Your task to perform on an android device: open app "Skype" (install if not already installed) Image 0: 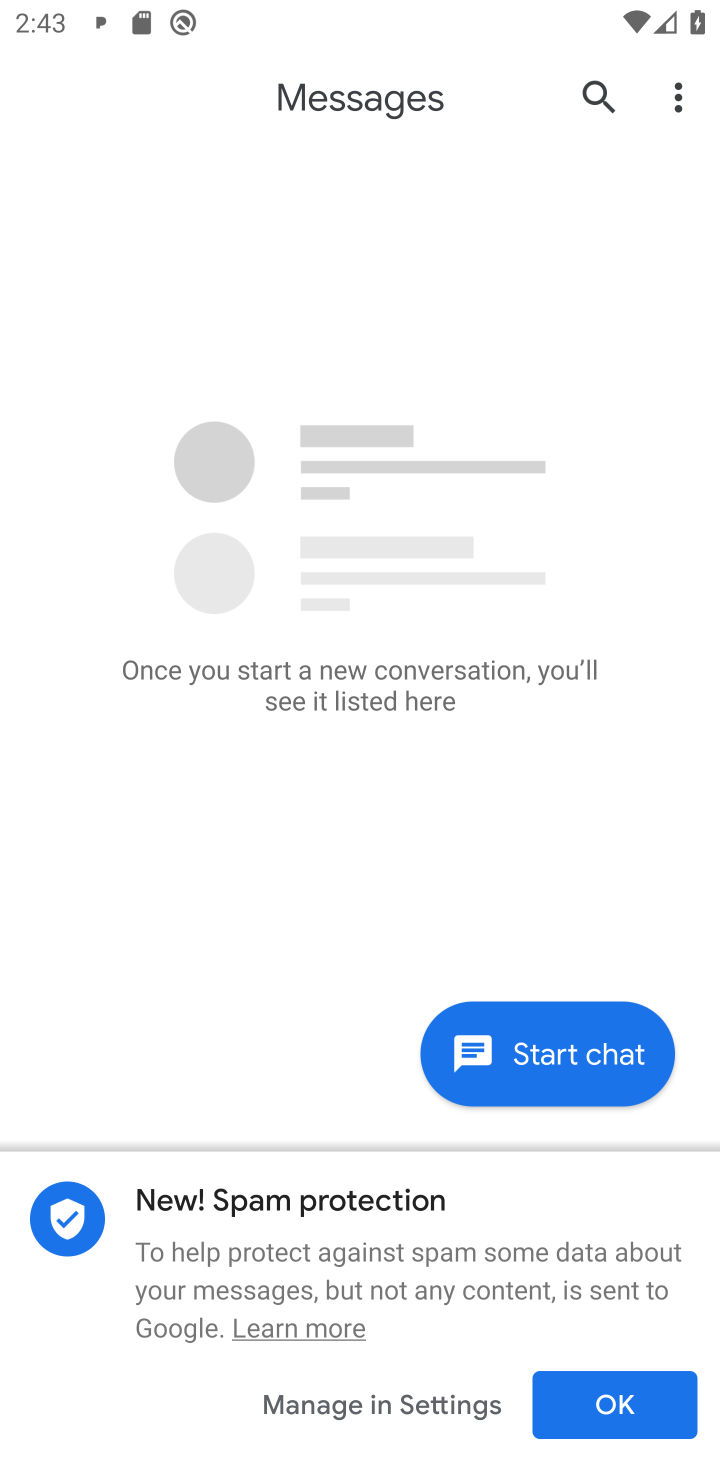
Step 0: press home button
Your task to perform on an android device: open app "Skype" (install if not already installed) Image 1: 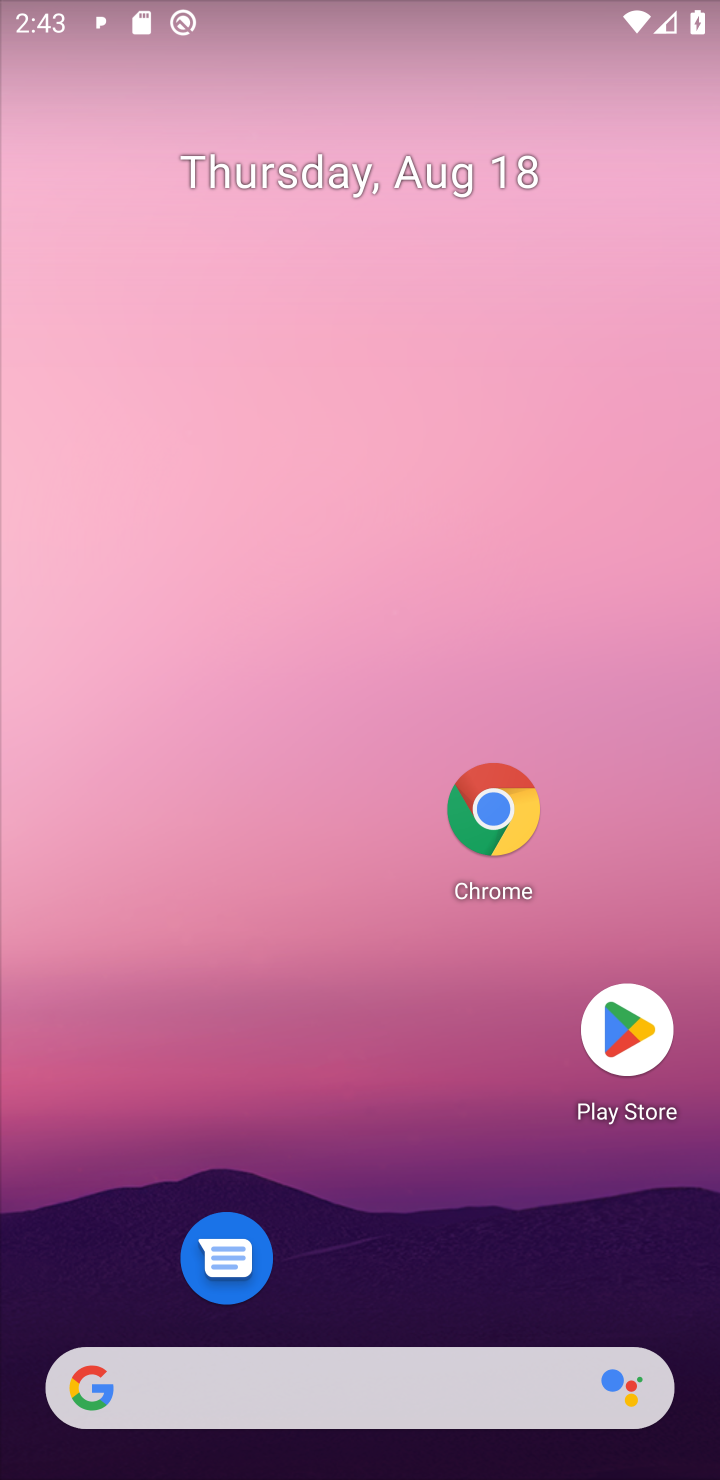
Step 1: click (615, 1035)
Your task to perform on an android device: open app "Skype" (install if not already installed) Image 2: 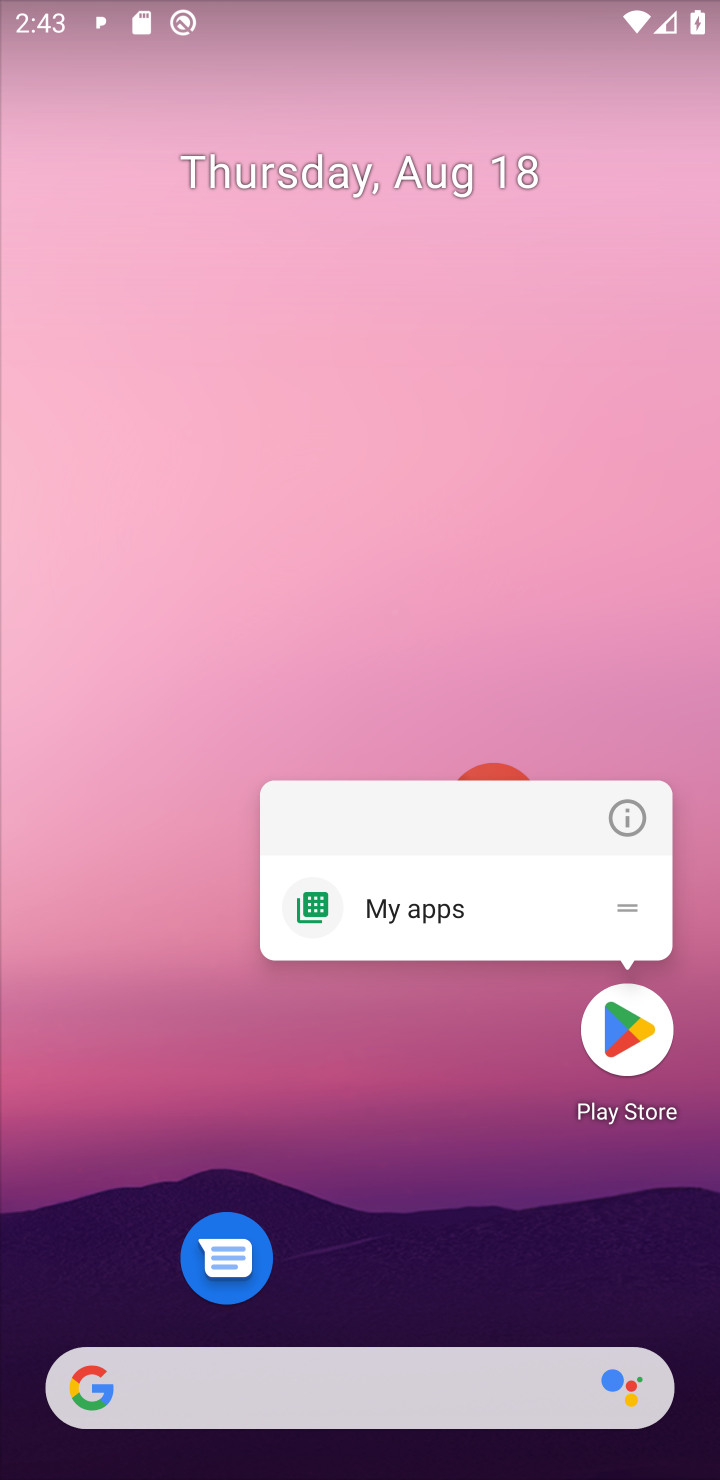
Step 2: click (653, 995)
Your task to perform on an android device: open app "Skype" (install if not already installed) Image 3: 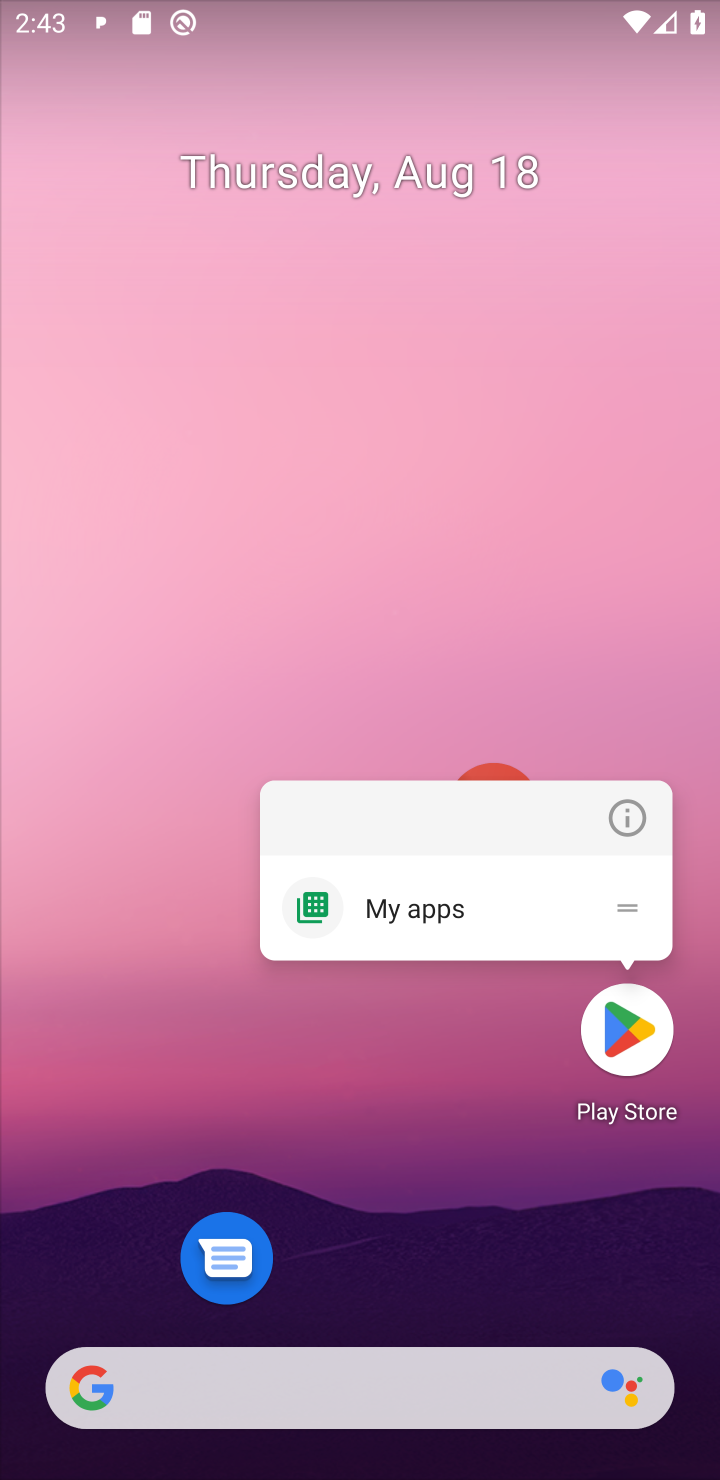
Step 3: click (625, 1031)
Your task to perform on an android device: open app "Skype" (install if not already installed) Image 4: 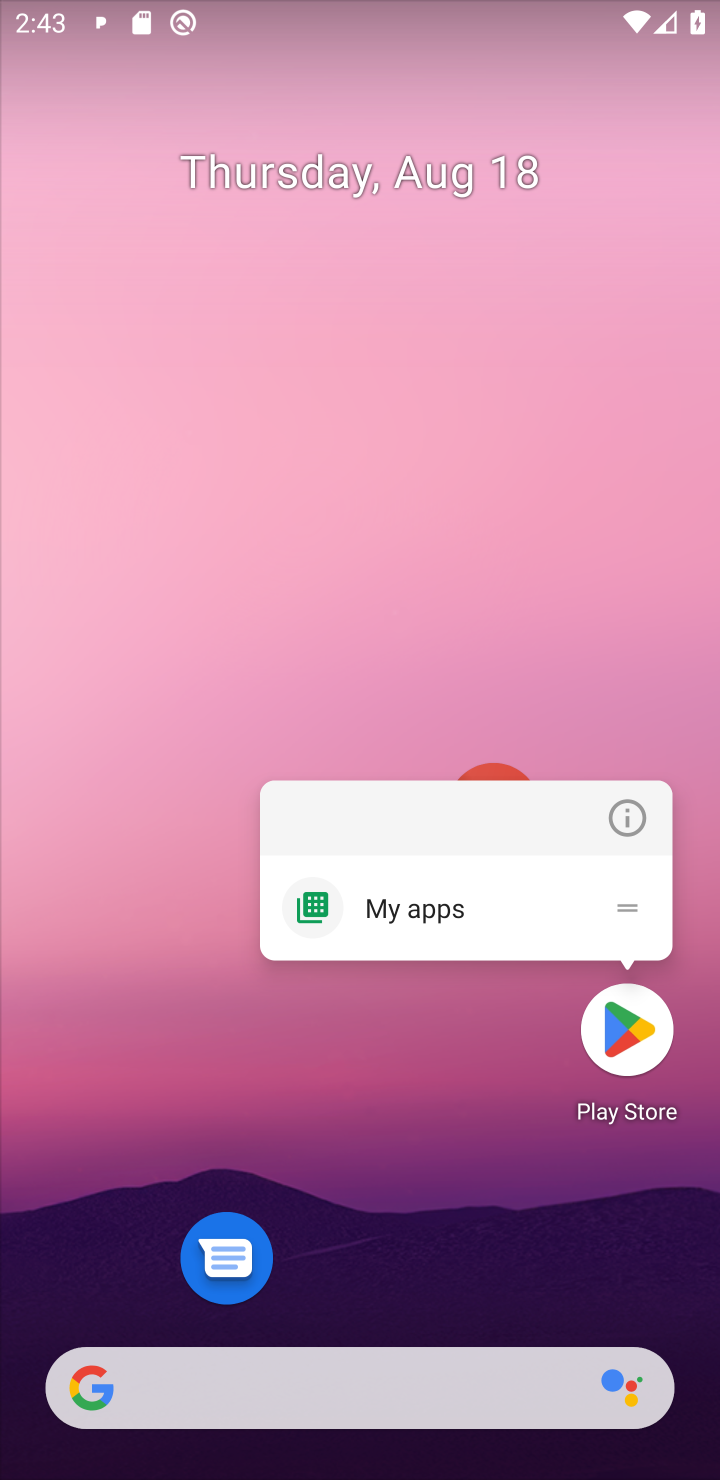
Step 4: click (625, 1031)
Your task to perform on an android device: open app "Skype" (install if not already installed) Image 5: 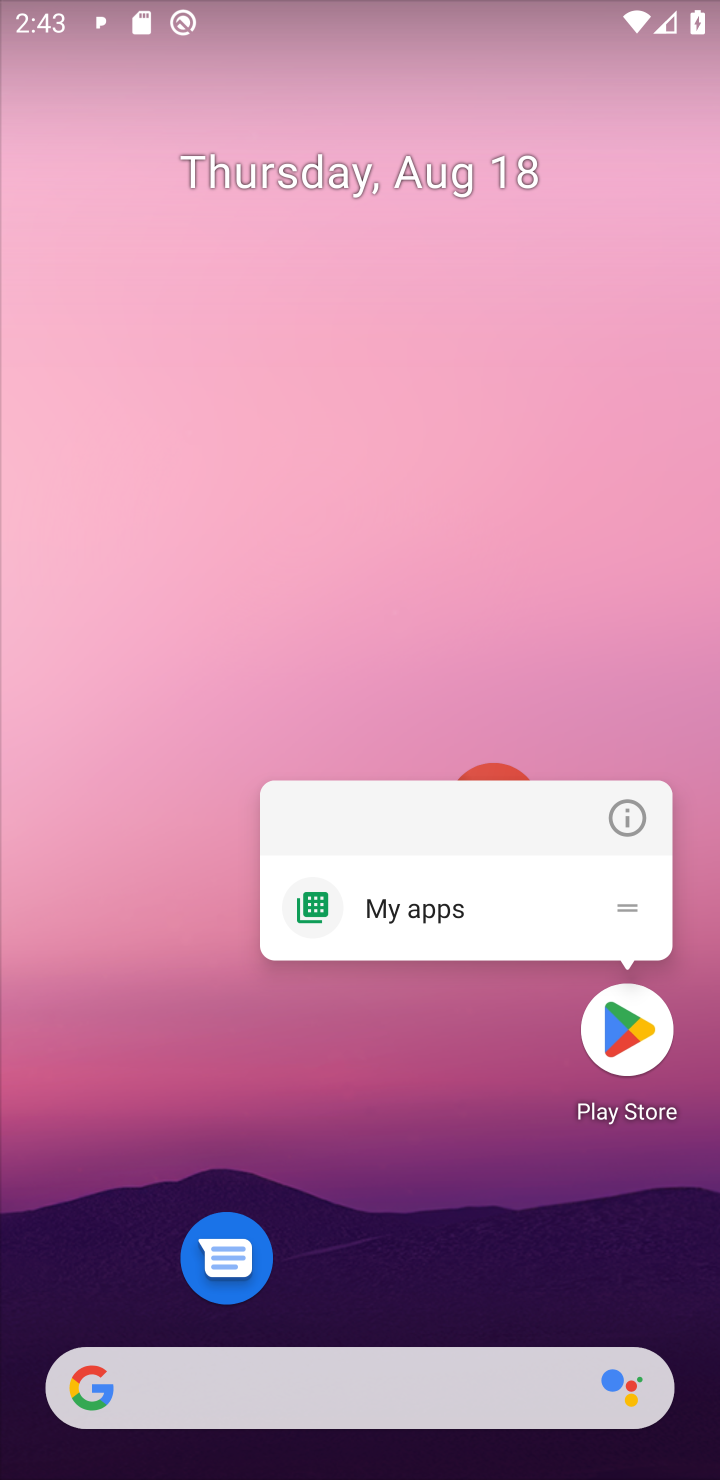
Step 5: click (637, 1061)
Your task to perform on an android device: open app "Skype" (install if not already installed) Image 6: 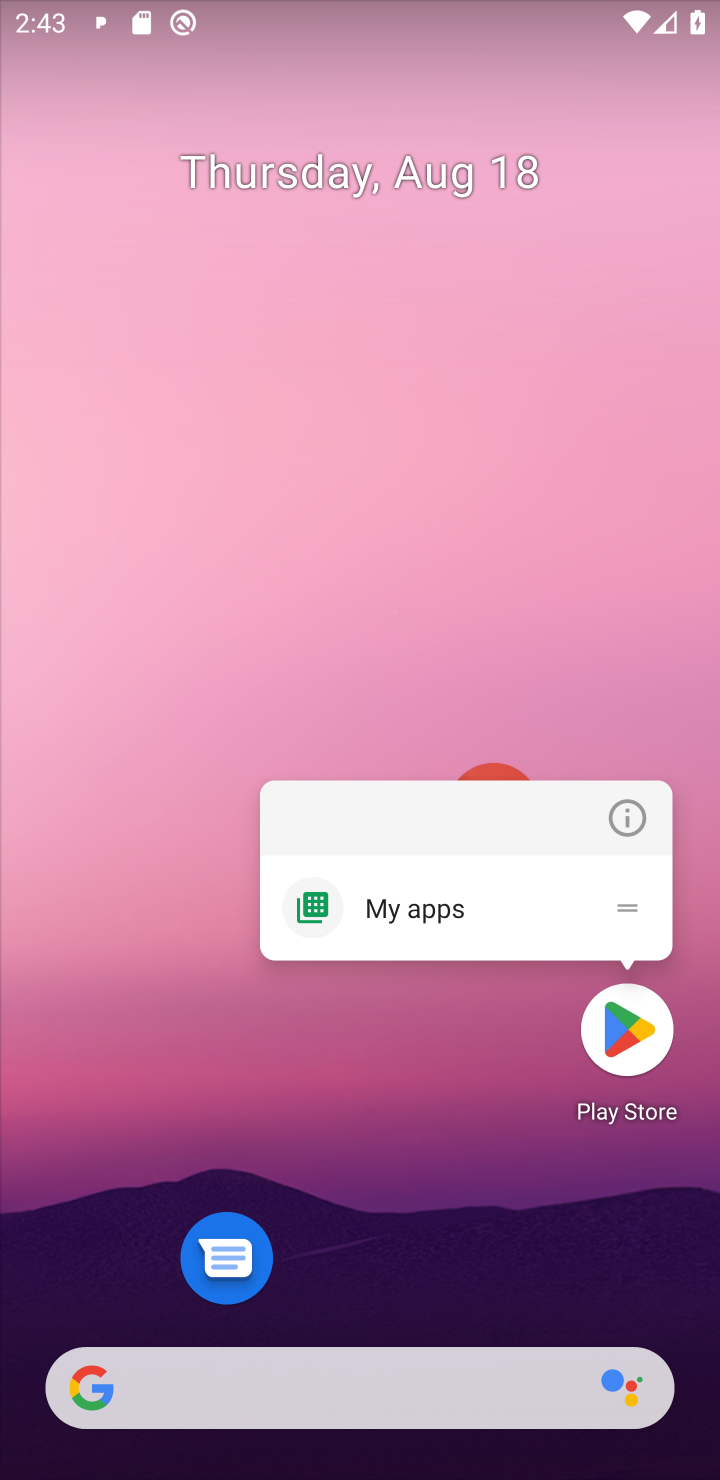
Step 6: click (605, 997)
Your task to perform on an android device: open app "Skype" (install if not already installed) Image 7: 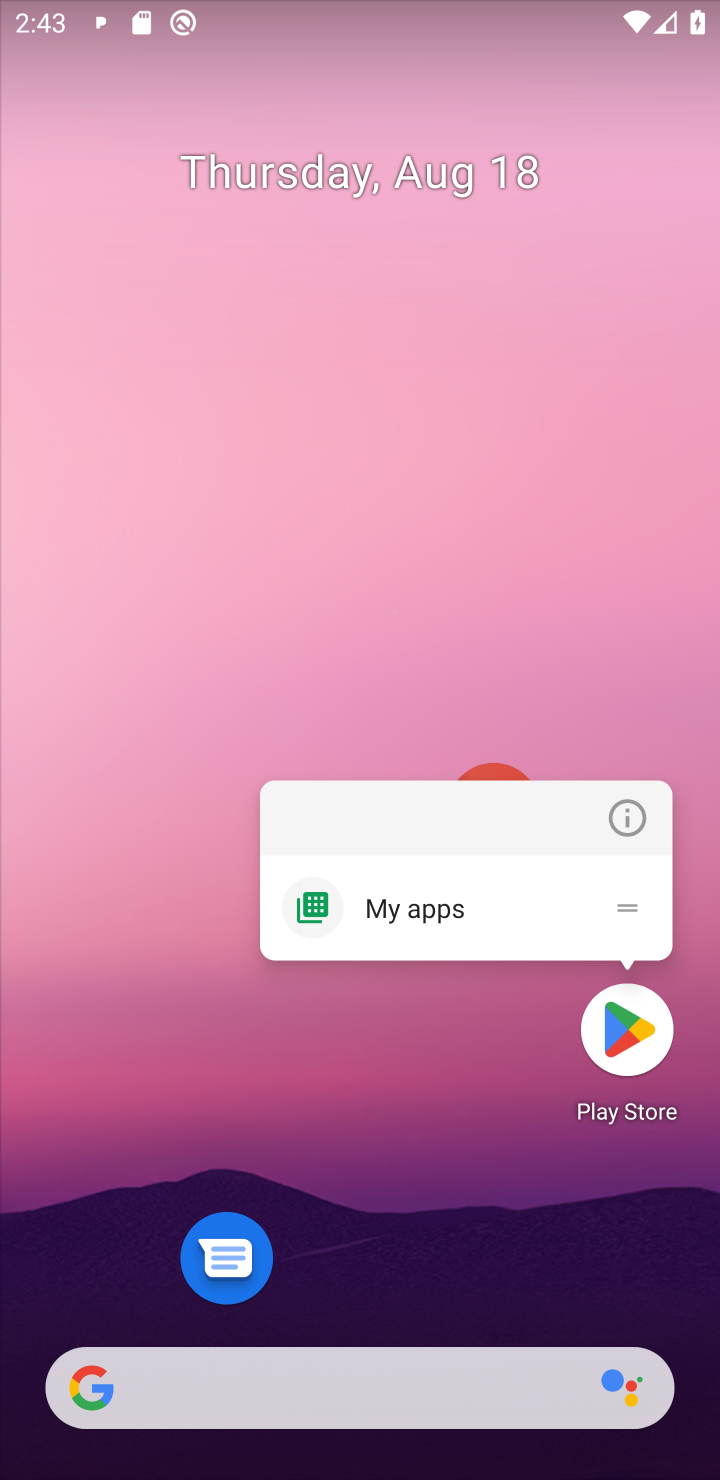
Step 7: click (613, 1029)
Your task to perform on an android device: open app "Skype" (install if not already installed) Image 8: 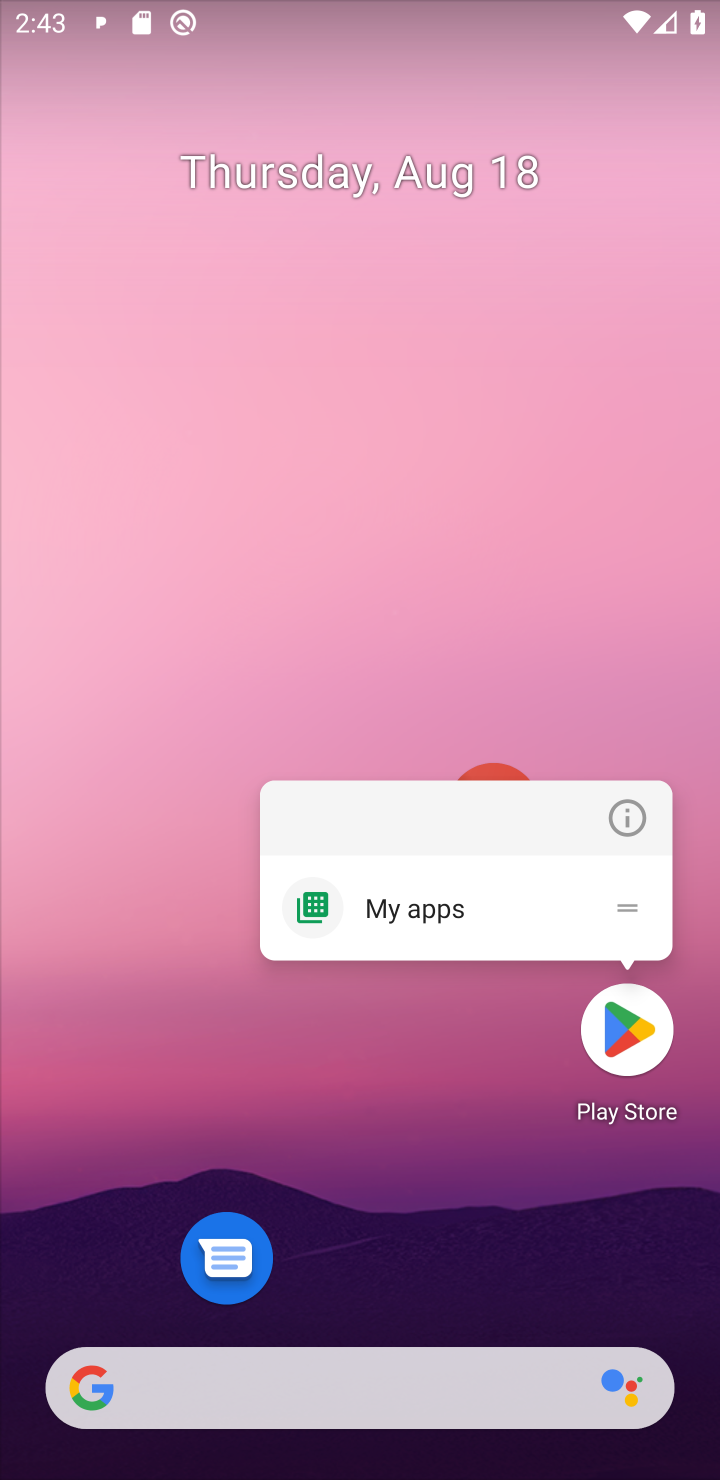
Step 8: click (632, 1054)
Your task to perform on an android device: open app "Skype" (install if not already installed) Image 9: 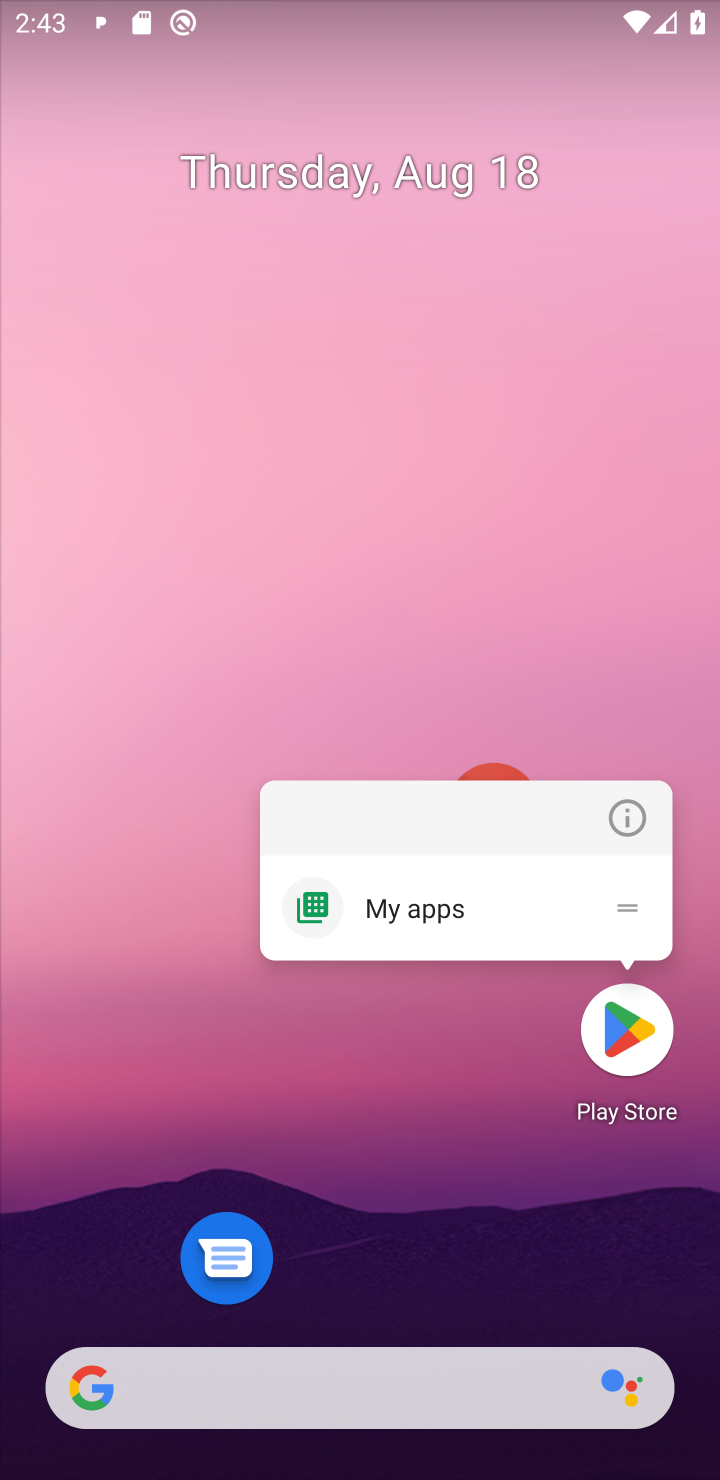
Step 9: click (632, 1054)
Your task to perform on an android device: open app "Skype" (install if not already installed) Image 10: 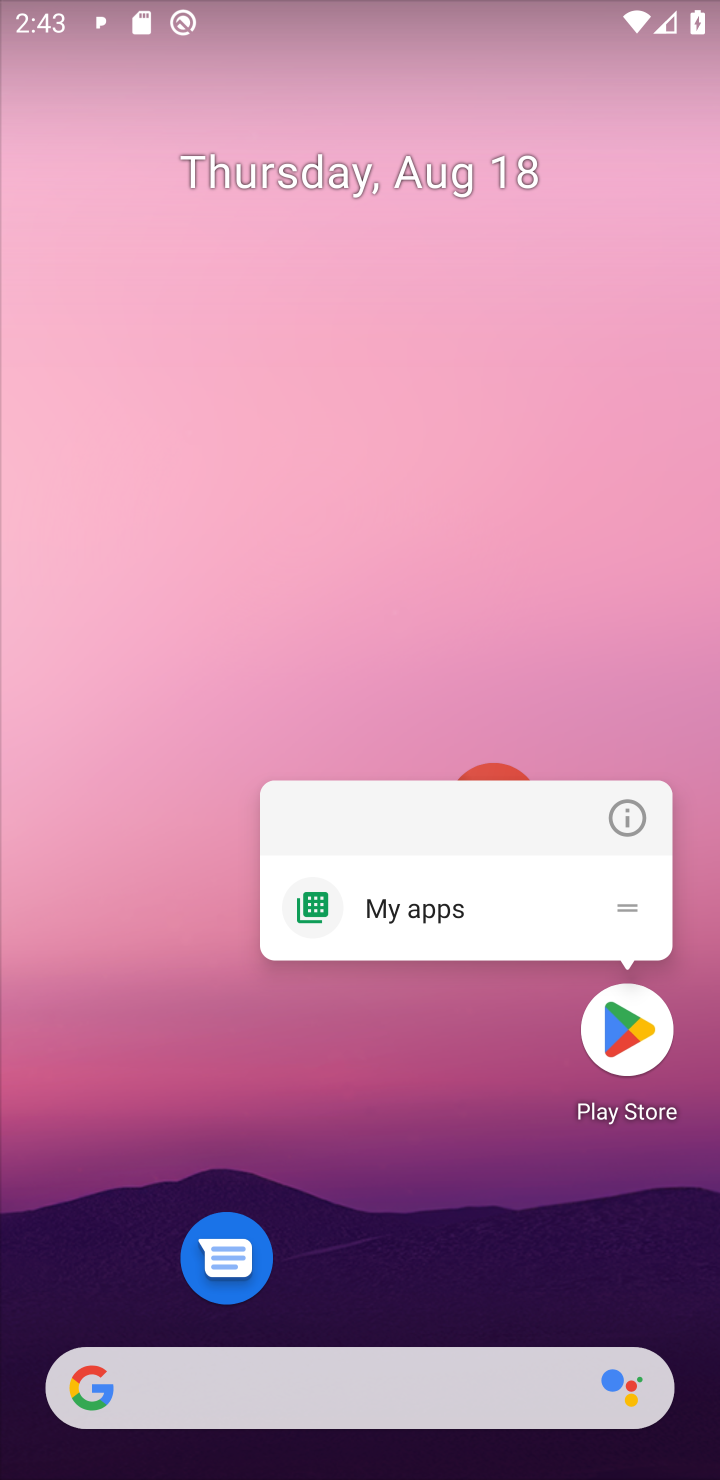
Step 10: click (60, 882)
Your task to perform on an android device: open app "Skype" (install if not already installed) Image 11: 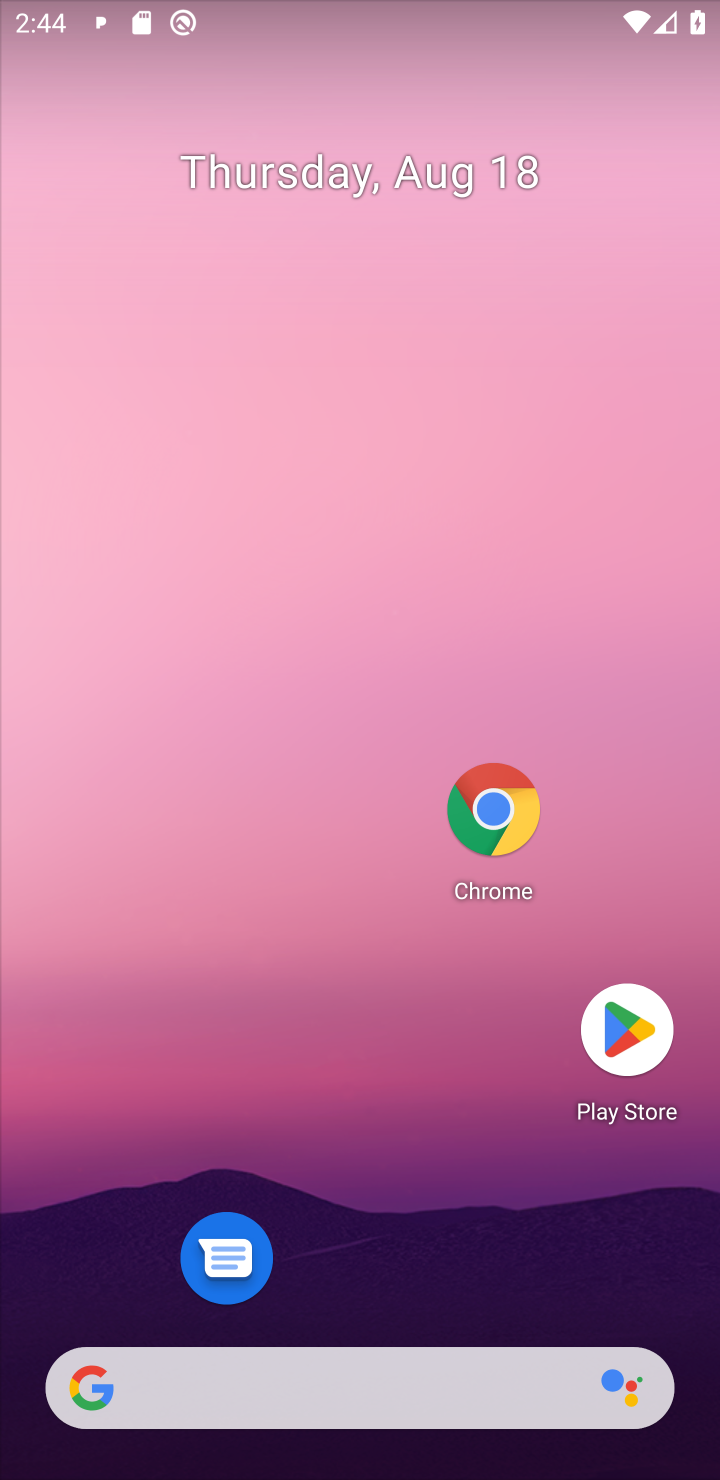
Step 11: click (628, 1039)
Your task to perform on an android device: open app "Skype" (install if not already installed) Image 12: 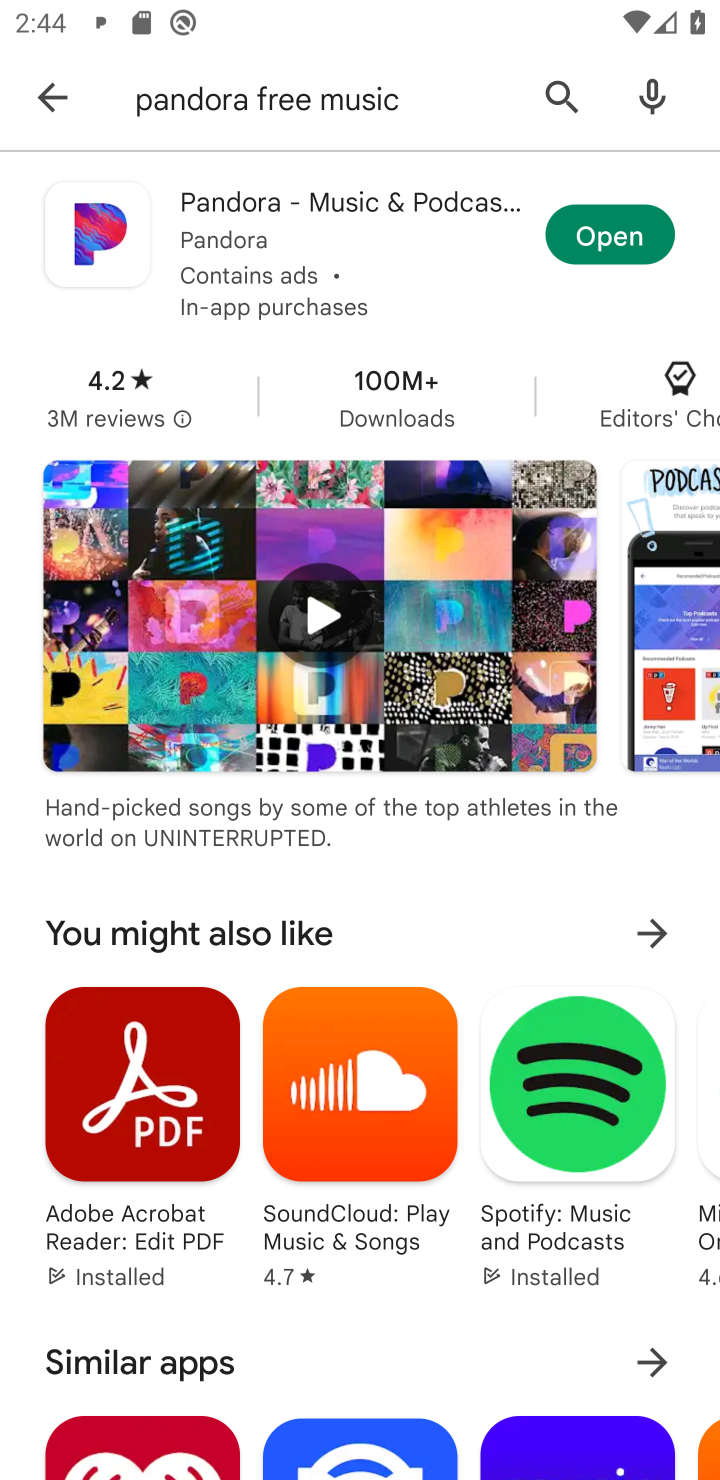
Step 12: click (64, 97)
Your task to perform on an android device: open app "Skype" (install if not already installed) Image 13: 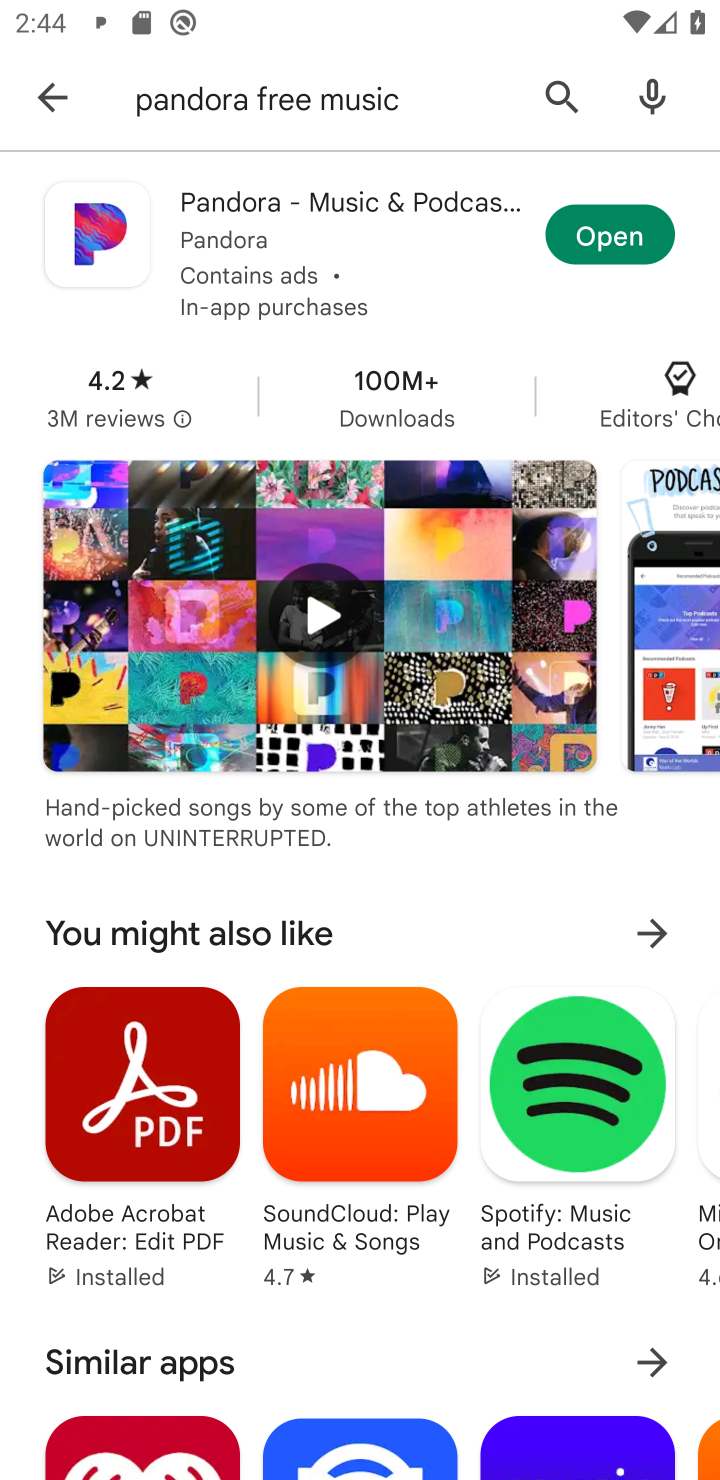
Step 13: click (64, 97)
Your task to perform on an android device: open app "Skype" (install if not already installed) Image 14: 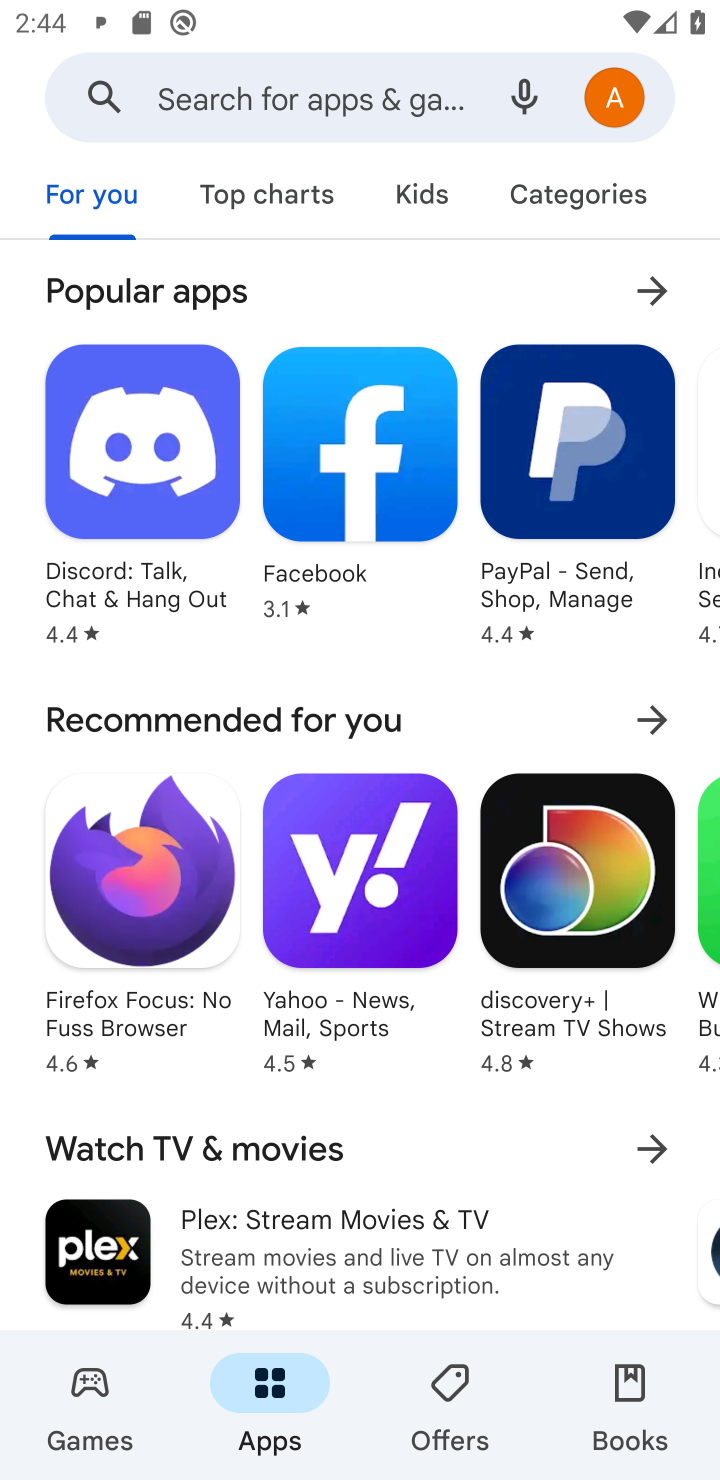
Step 14: click (266, 87)
Your task to perform on an android device: open app "Skype" (install if not already installed) Image 15: 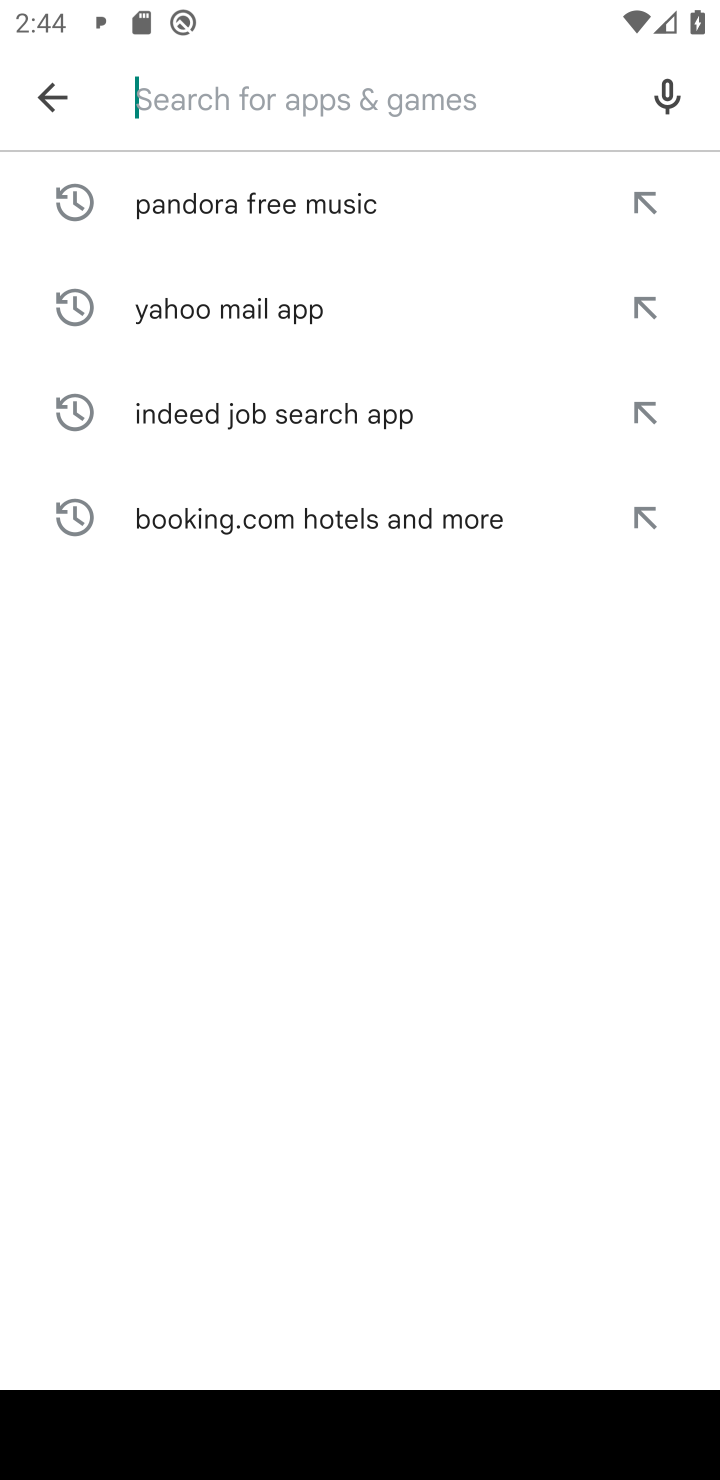
Step 15: type "skype "
Your task to perform on an android device: open app "Skype" (install if not already installed) Image 16: 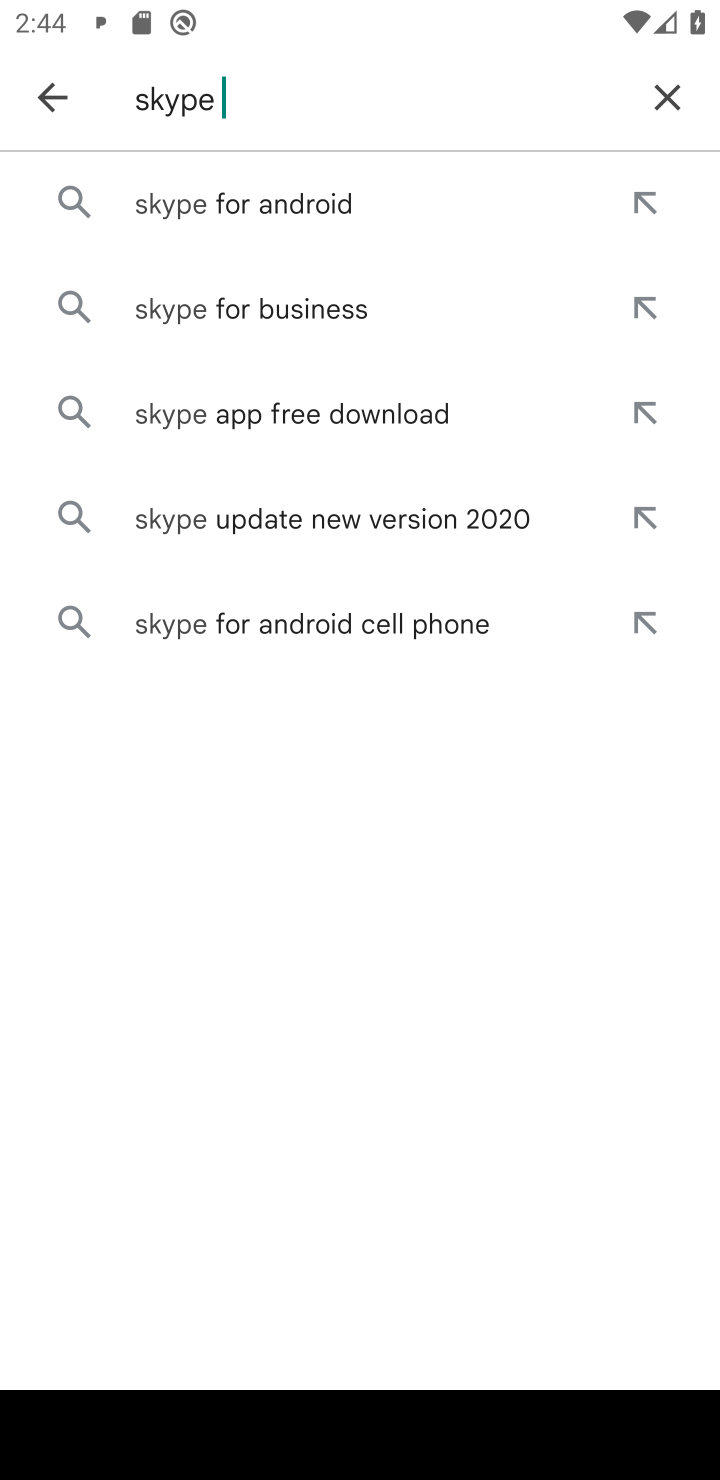
Step 16: click (225, 230)
Your task to perform on an android device: open app "Skype" (install if not already installed) Image 17: 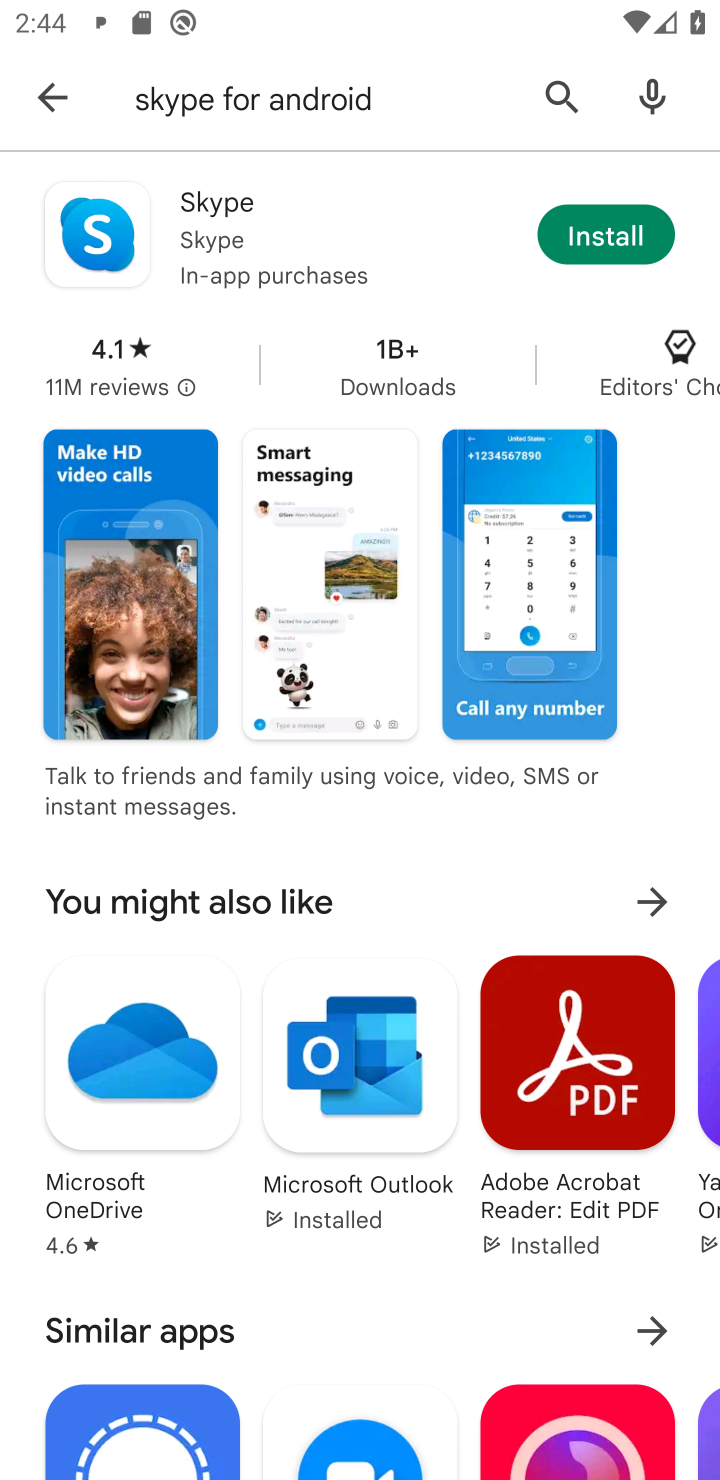
Step 17: click (614, 234)
Your task to perform on an android device: open app "Skype" (install if not already installed) Image 18: 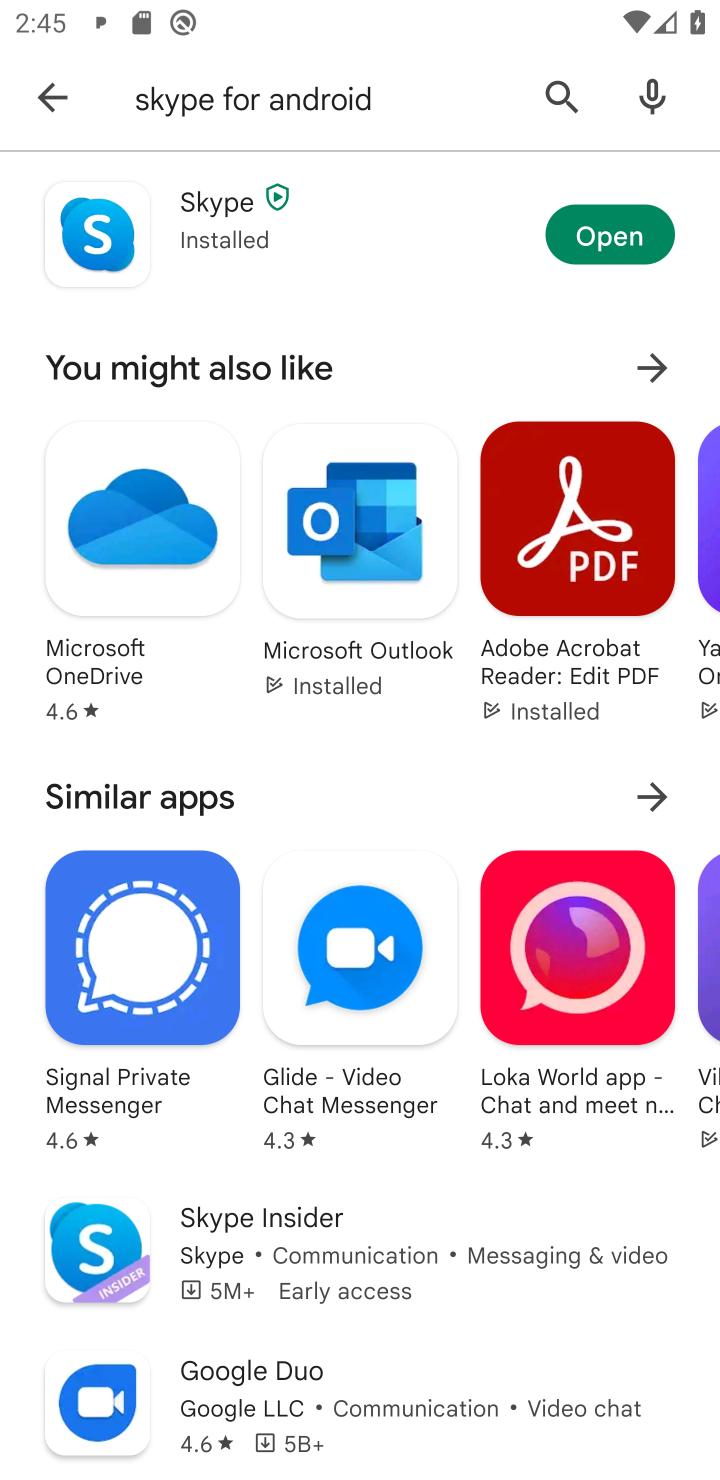
Step 18: click (614, 234)
Your task to perform on an android device: open app "Skype" (install if not already installed) Image 19: 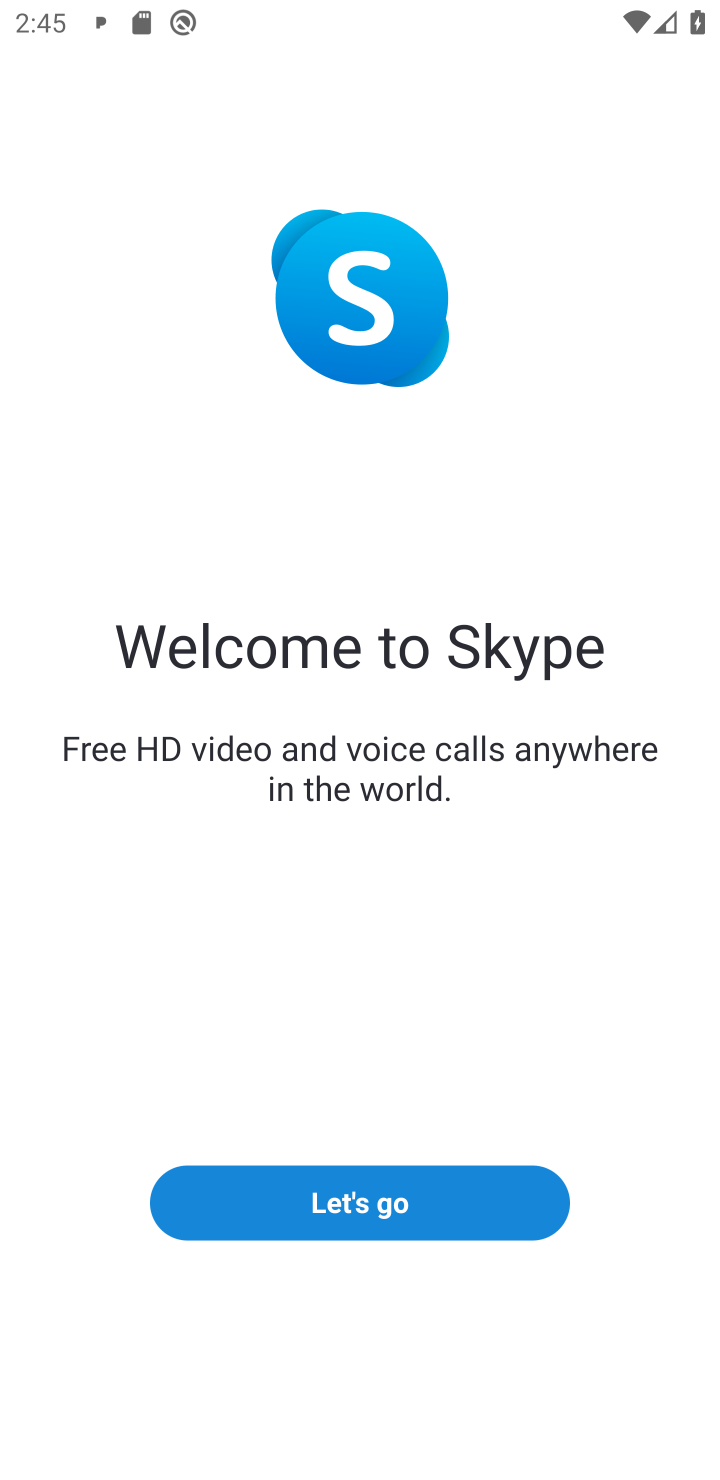
Step 19: task complete